Your task to perform on an android device: Go to Android settings Image 0: 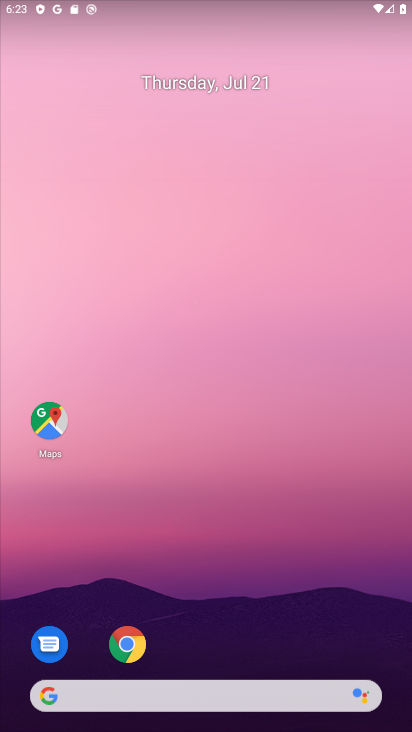
Step 0: drag from (308, 500) to (303, 331)
Your task to perform on an android device: Go to Android settings Image 1: 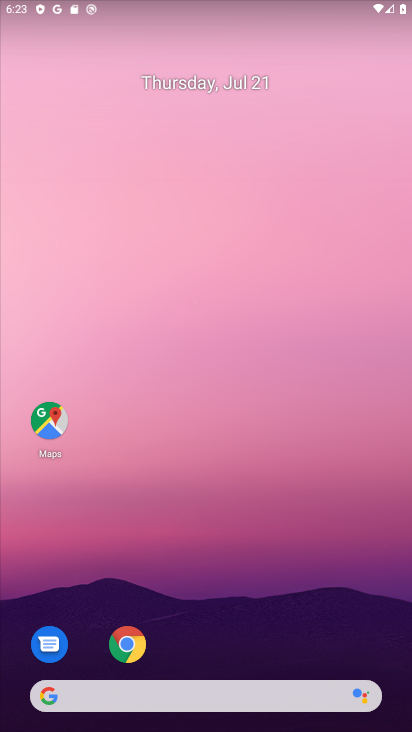
Step 1: drag from (291, 586) to (307, 168)
Your task to perform on an android device: Go to Android settings Image 2: 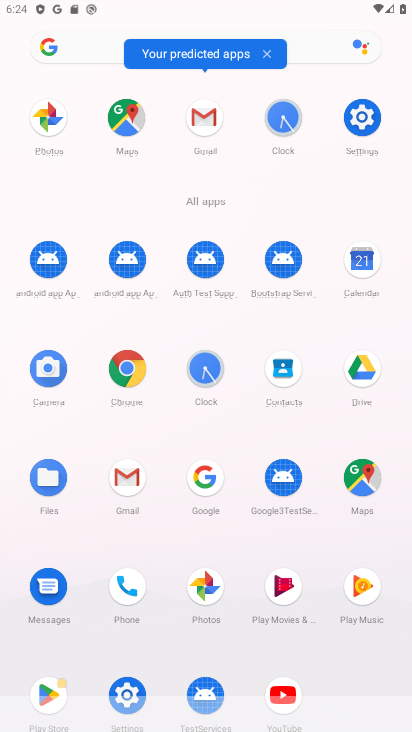
Step 2: click (375, 124)
Your task to perform on an android device: Go to Android settings Image 3: 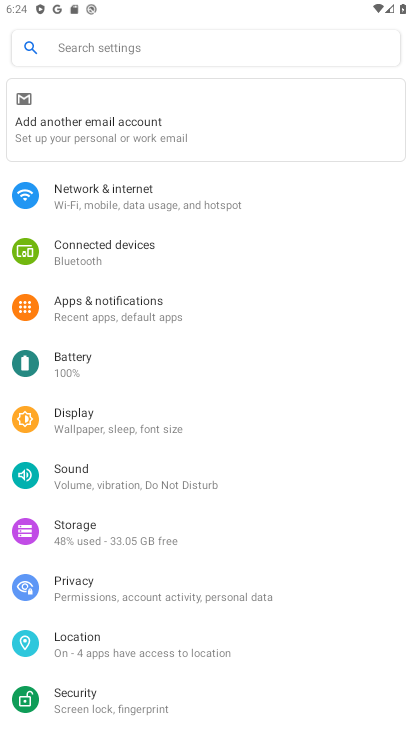
Step 3: task complete